Your task to perform on an android device: toggle translation in the chrome app Image 0: 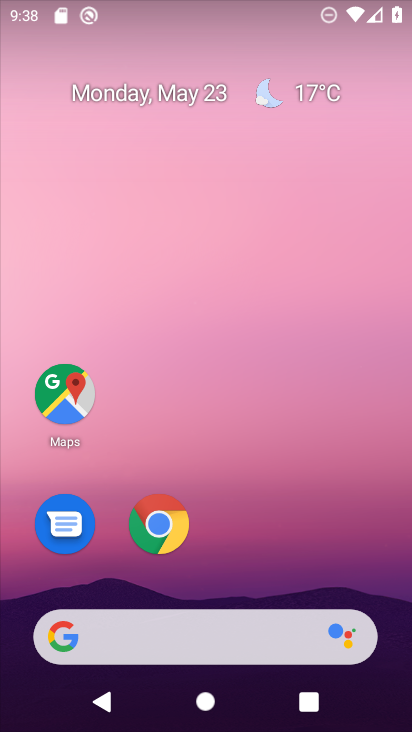
Step 0: click (182, 518)
Your task to perform on an android device: toggle translation in the chrome app Image 1: 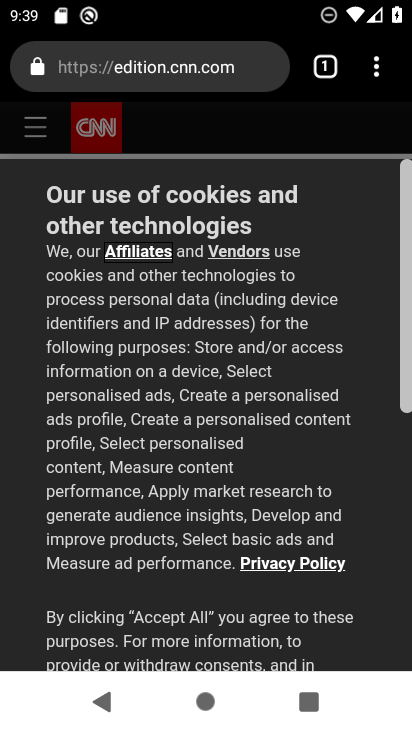
Step 1: click (372, 83)
Your task to perform on an android device: toggle translation in the chrome app Image 2: 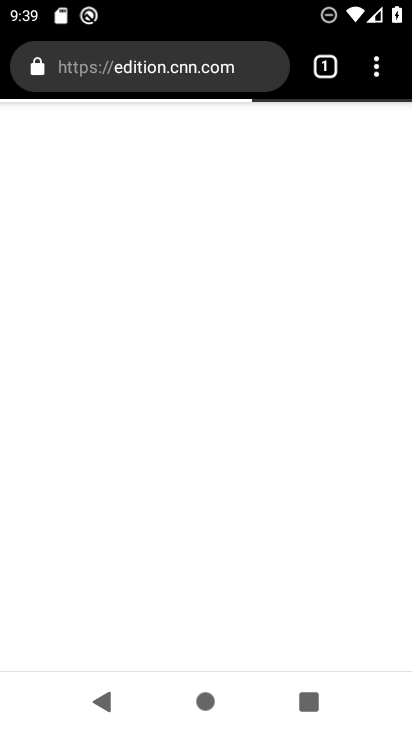
Step 2: drag from (373, 62) to (162, 528)
Your task to perform on an android device: toggle translation in the chrome app Image 3: 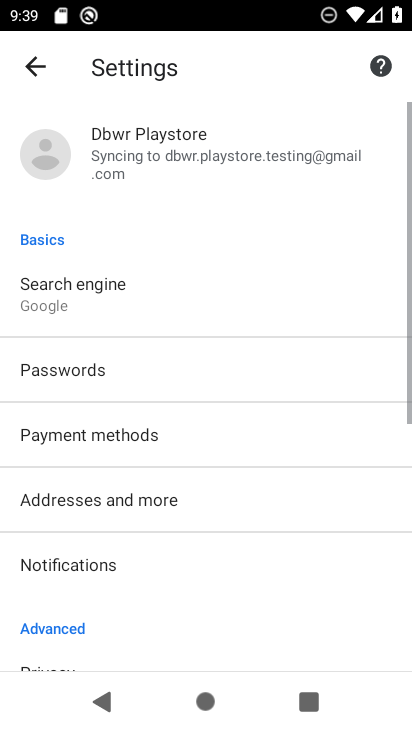
Step 3: drag from (205, 451) to (239, 209)
Your task to perform on an android device: toggle translation in the chrome app Image 4: 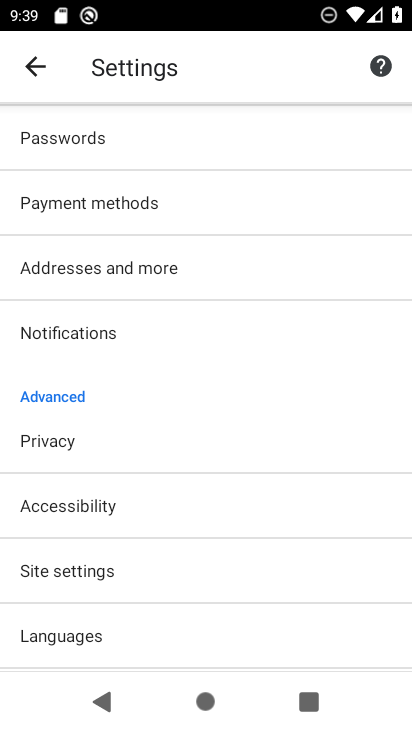
Step 4: click (119, 636)
Your task to perform on an android device: toggle translation in the chrome app Image 5: 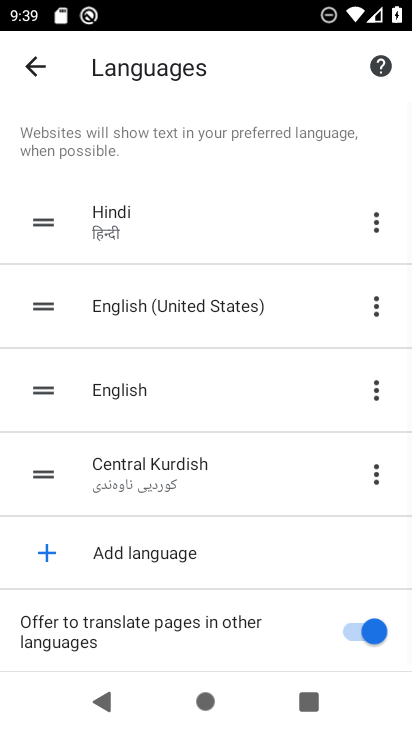
Step 5: click (355, 610)
Your task to perform on an android device: toggle translation in the chrome app Image 6: 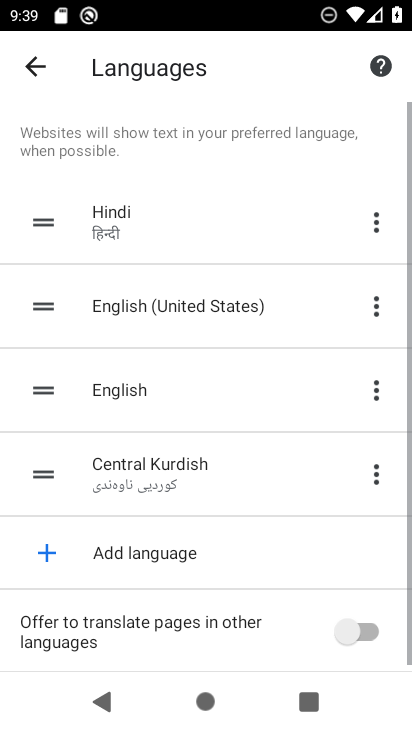
Step 6: task complete